Your task to perform on an android device: toggle translation in the chrome app Image 0: 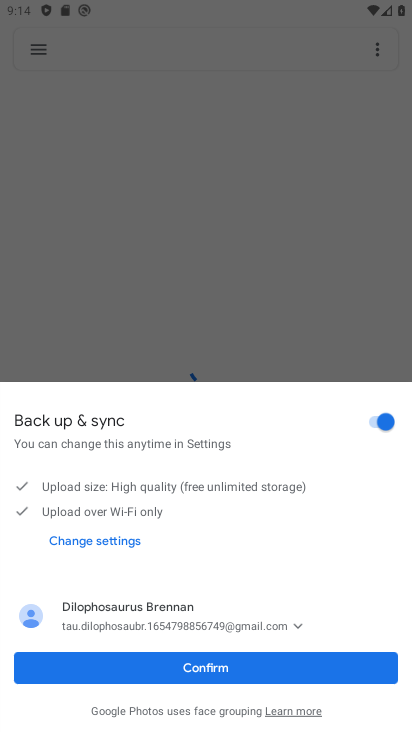
Step 0: press home button
Your task to perform on an android device: toggle translation in the chrome app Image 1: 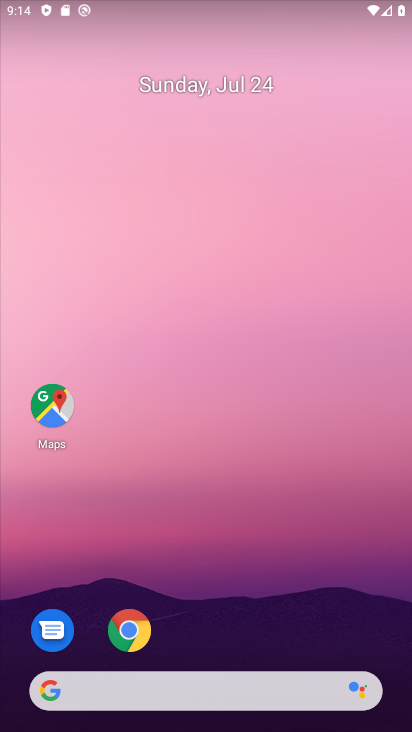
Step 1: click (138, 626)
Your task to perform on an android device: toggle translation in the chrome app Image 2: 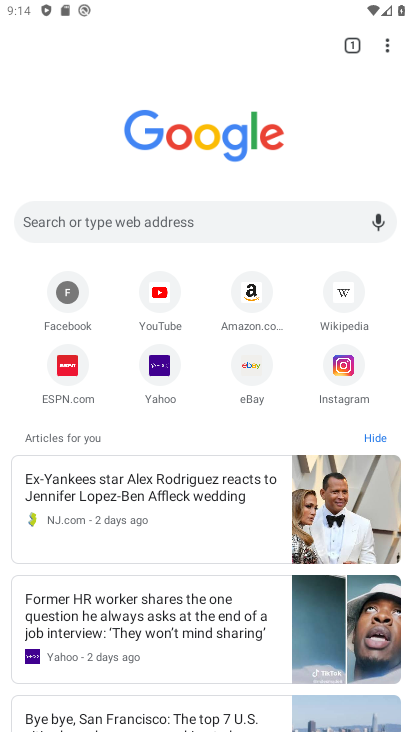
Step 2: click (392, 43)
Your task to perform on an android device: toggle translation in the chrome app Image 3: 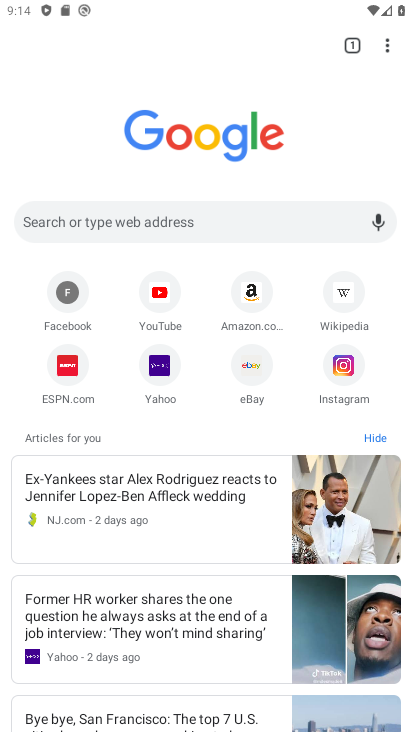
Step 3: click (392, 43)
Your task to perform on an android device: toggle translation in the chrome app Image 4: 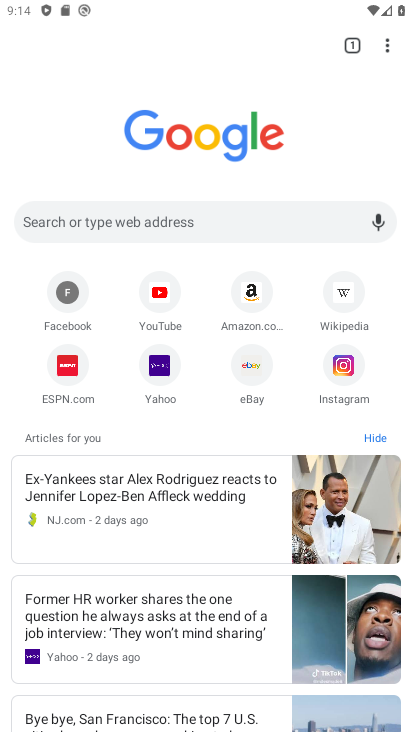
Step 4: click (392, 43)
Your task to perform on an android device: toggle translation in the chrome app Image 5: 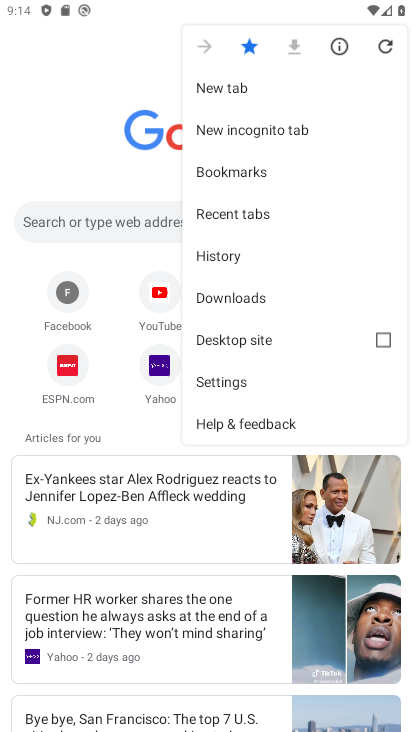
Step 5: click (205, 386)
Your task to perform on an android device: toggle translation in the chrome app Image 6: 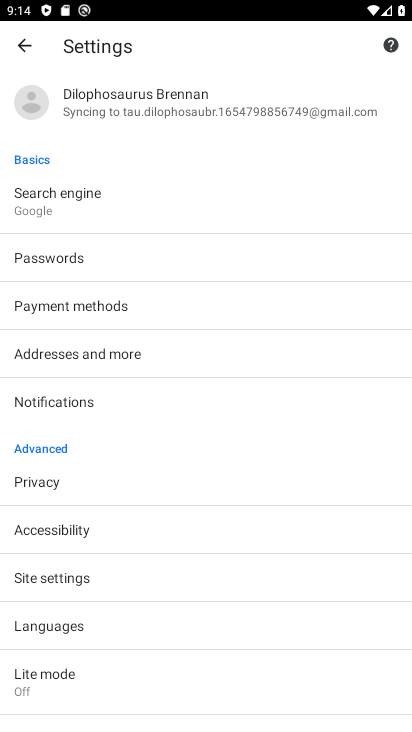
Step 6: click (90, 627)
Your task to perform on an android device: toggle translation in the chrome app Image 7: 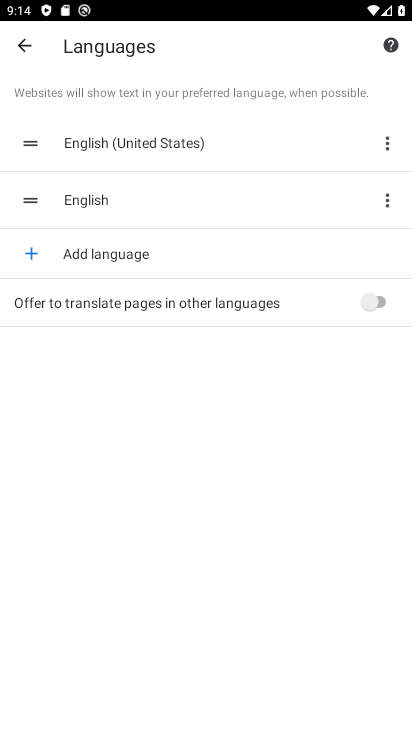
Step 7: click (373, 294)
Your task to perform on an android device: toggle translation in the chrome app Image 8: 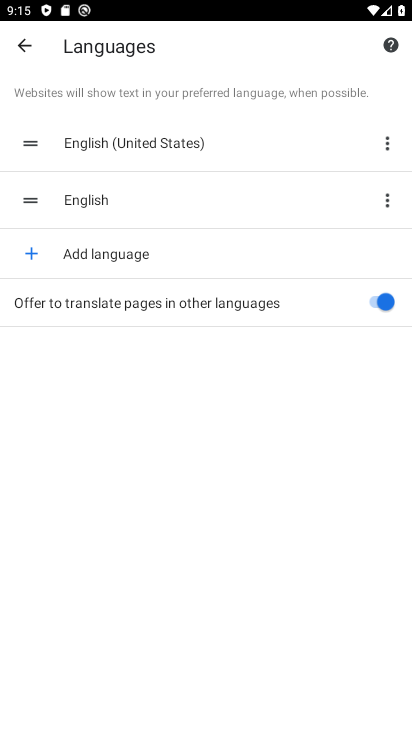
Step 8: task complete